Your task to perform on an android device: clear all cookies in the chrome app Image 0: 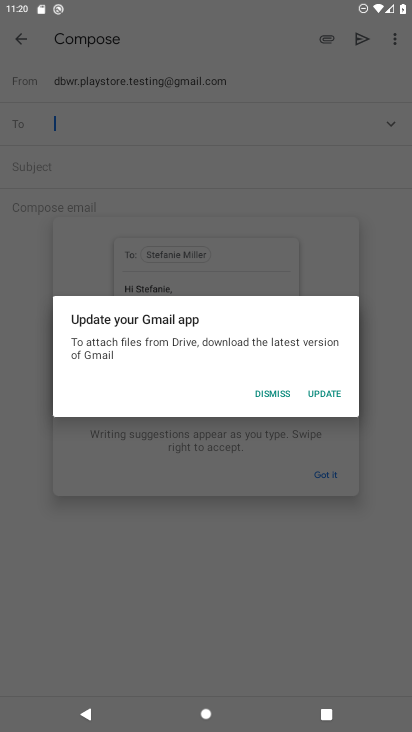
Step 0: press home button
Your task to perform on an android device: clear all cookies in the chrome app Image 1: 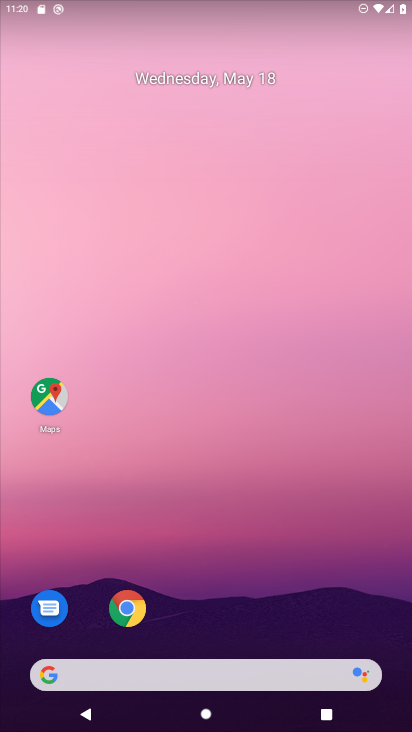
Step 1: click (126, 608)
Your task to perform on an android device: clear all cookies in the chrome app Image 2: 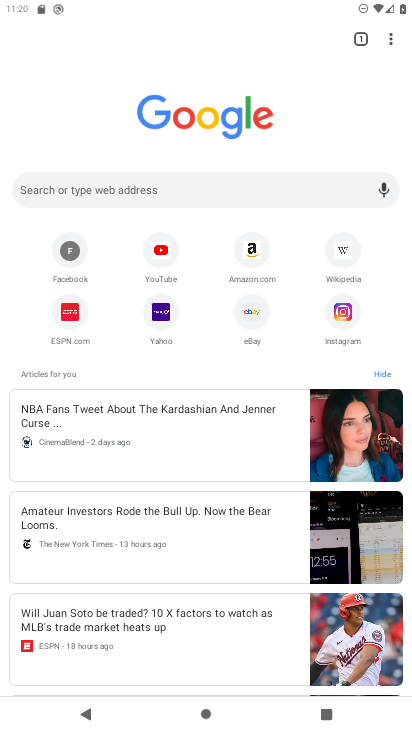
Step 2: click (390, 38)
Your task to perform on an android device: clear all cookies in the chrome app Image 3: 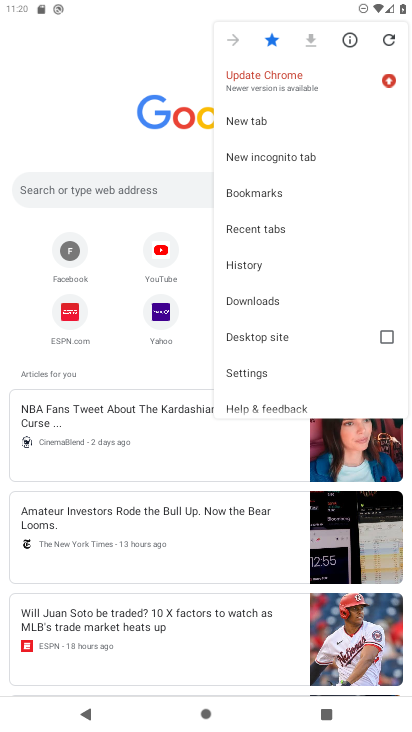
Step 3: click (251, 370)
Your task to perform on an android device: clear all cookies in the chrome app Image 4: 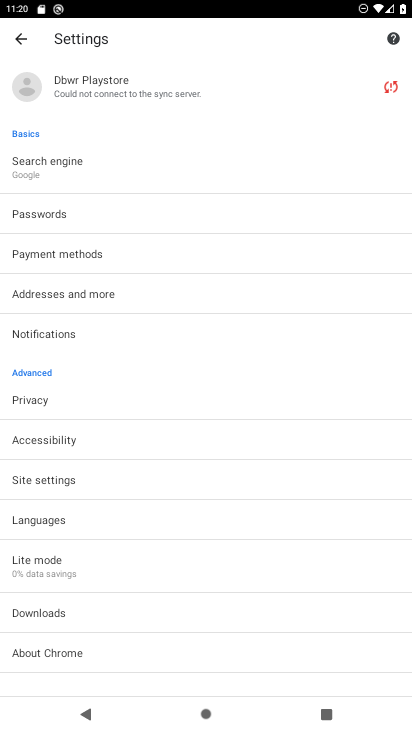
Step 4: click (31, 396)
Your task to perform on an android device: clear all cookies in the chrome app Image 5: 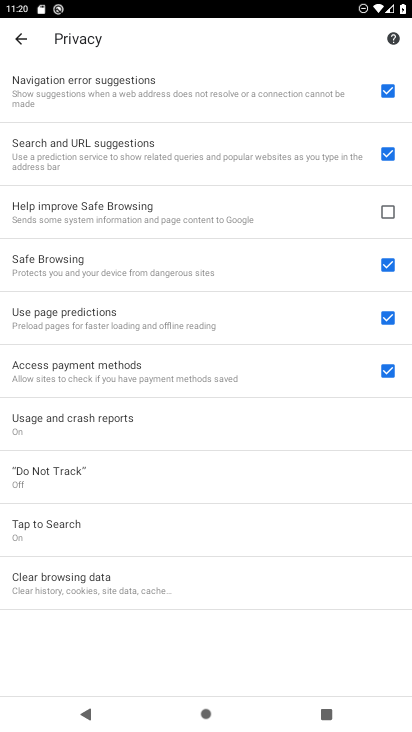
Step 5: click (64, 579)
Your task to perform on an android device: clear all cookies in the chrome app Image 6: 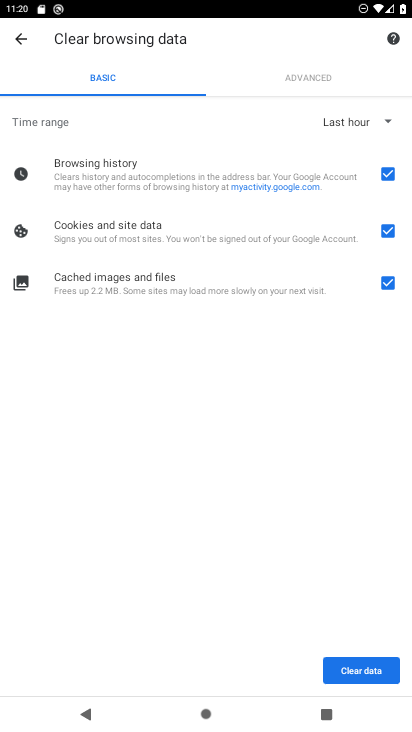
Step 6: click (384, 176)
Your task to perform on an android device: clear all cookies in the chrome app Image 7: 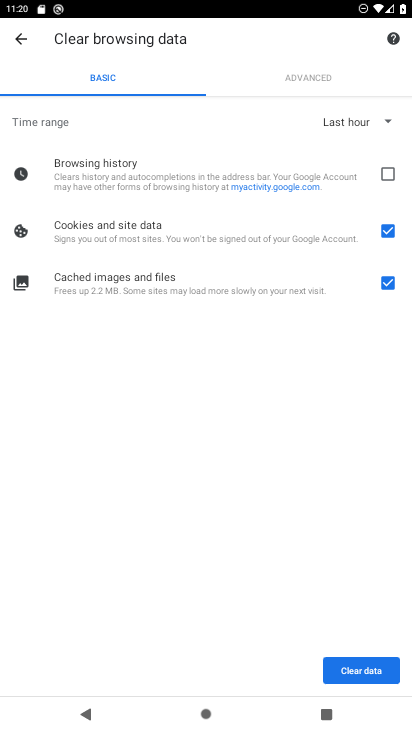
Step 7: click (377, 286)
Your task to perform on an android device: clear all cookies in the chrome app Image 8: 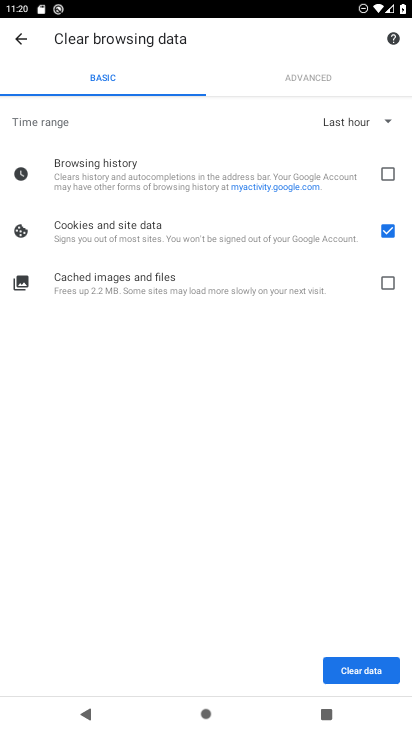
Step 8: click (376, 116)
Your task to perform on an android device: clear all cookies in the chrome app Image 9: 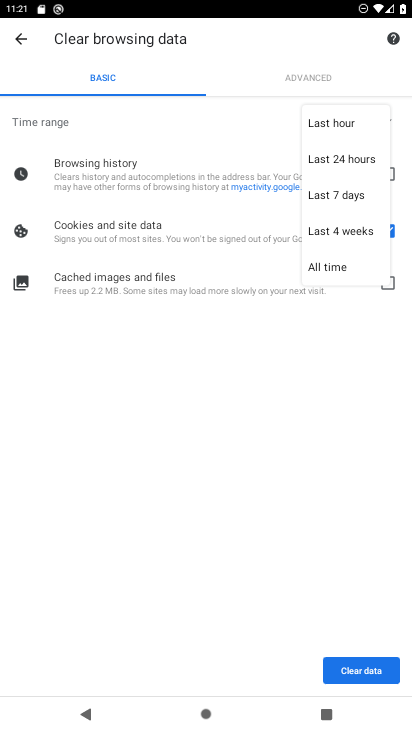
Step 9: click (349, 267)
Your task to perform on an android device: clear all cookies in the chrome app Image 10: 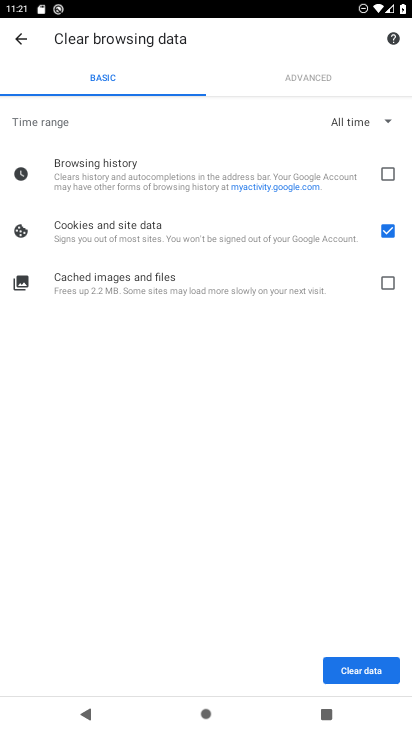
Step 10: click (361, 665)
Your task to perform on an android device: clear all cookies in the chrome app Image 11: 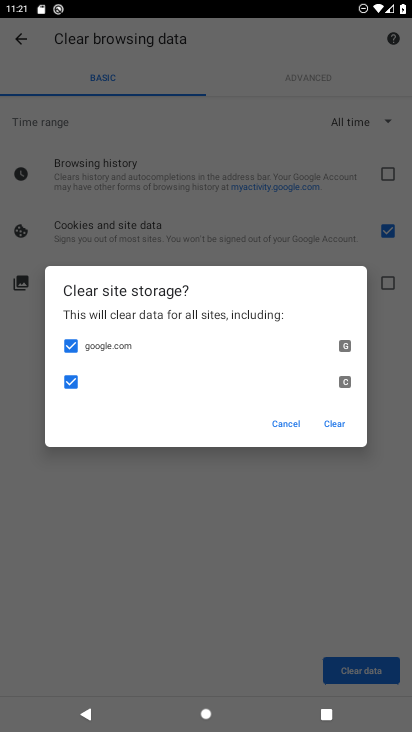
Step 11: click (337, 422)
Your task to perform on an android device: clear all cookies in the chrome app Image 12: 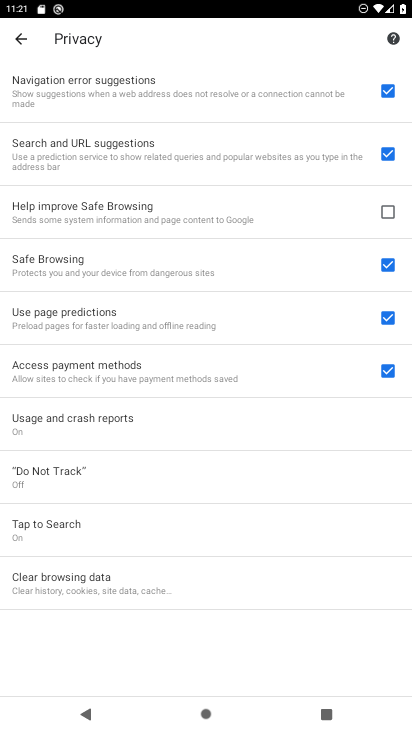
Step 12: task complete